Your task to perform on an android device: toggle sleep mode Image 0: 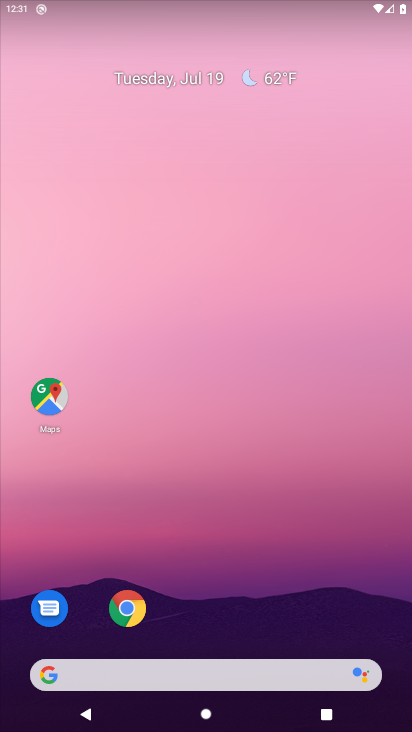
Step 0: press home button
Your task to perform on an android device: toggle sleep mode Image 1: 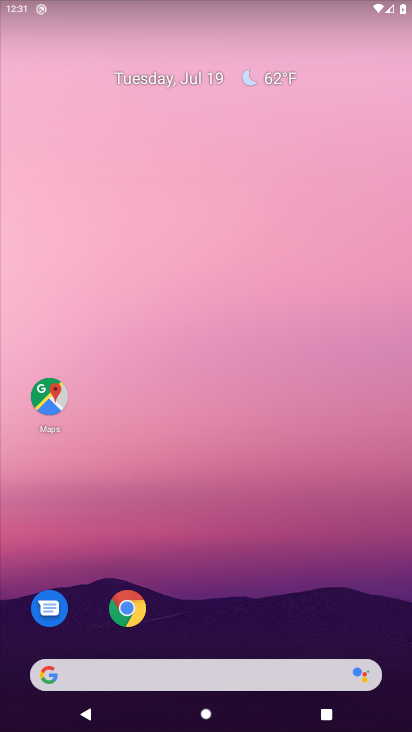
Step 1: drag from (226, 635) to (220, 87)
Your task to perform on an android device: toggle sleep mode Image 2: 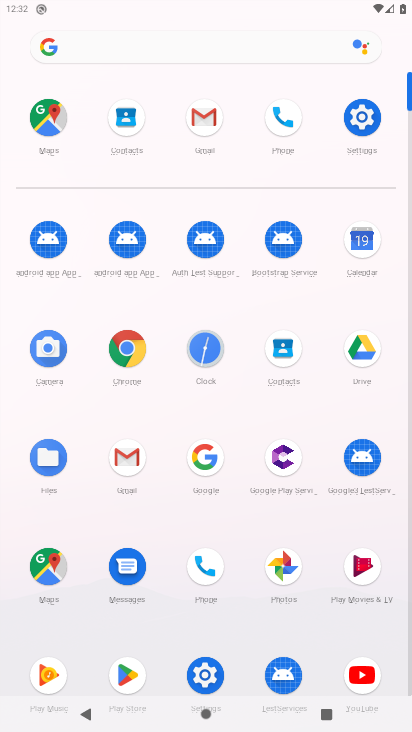
Step 2: click (365, 114)
Your task to perform on an android device: toggle sleep mode Image 3: 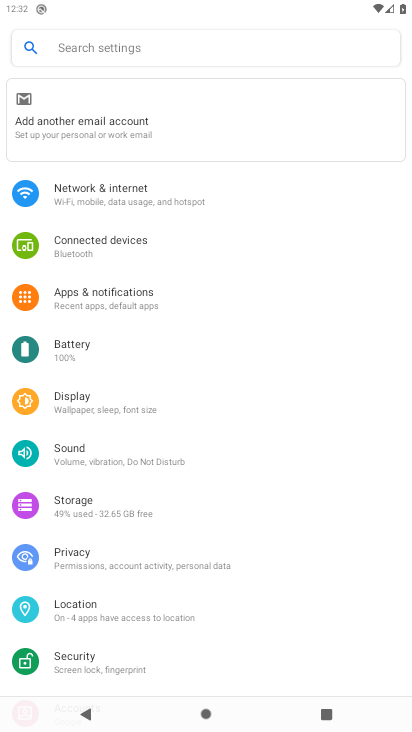
Step 3: click (91, 396)
Your task to perform on an android device: toggle sleep mode Image 4: 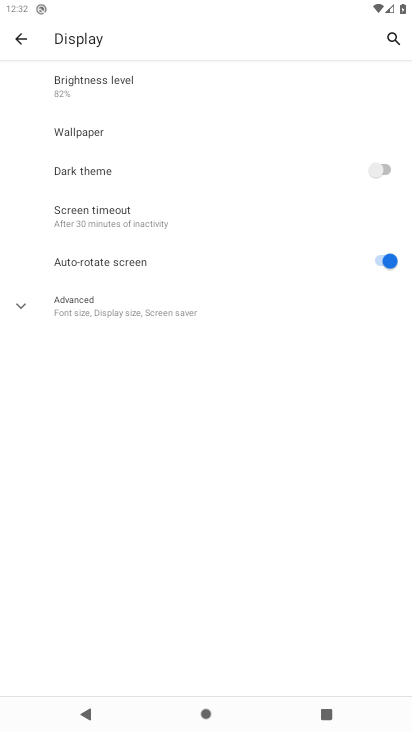
Step 4: click (24, 304)
Your task to perform on an android device: toggle sleep mode Image 5: 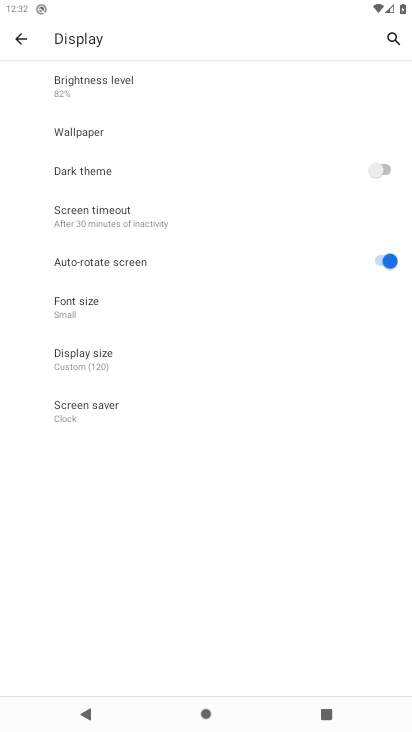
Step 5: task complete